Your task to perform on an android device: allow cookies in the chrome app Image 0: 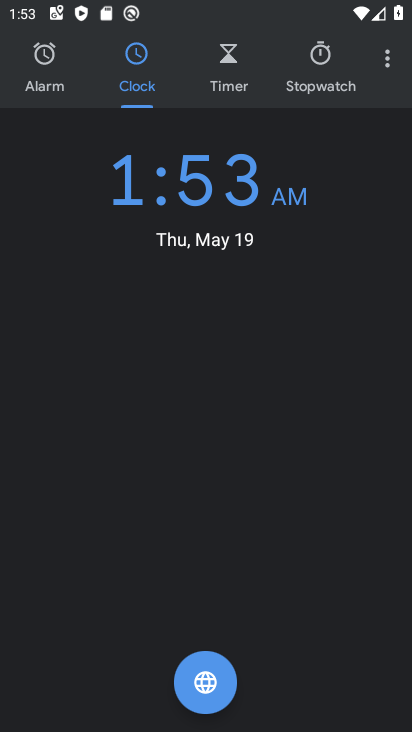
Step 0: press home button
Your task to perform on an android device: allow cookies in the chrome app Image 1: 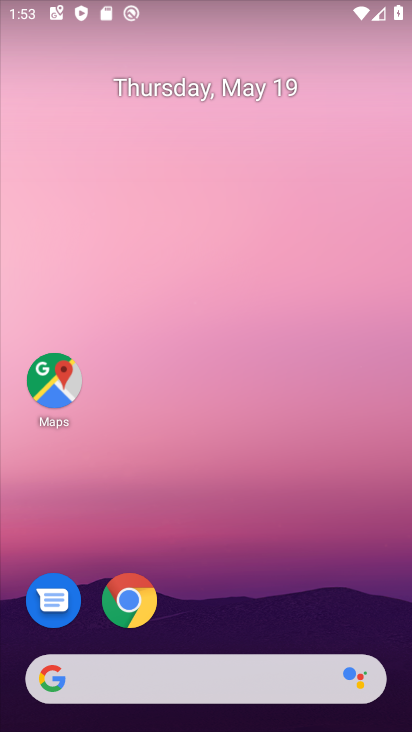
Step 1: click (126, 589)
Your task to perform on an android device: allow cookies in the chrome app Image 2: 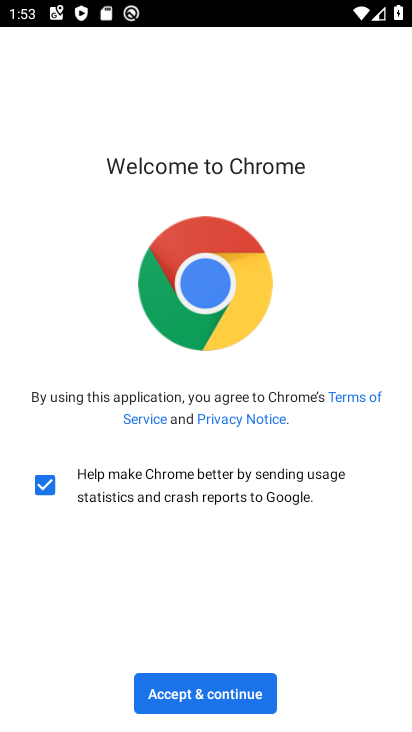
Step 2: click (218, 695)
Your task to perform on an android device: allow cookies in the chrome app Image 3: 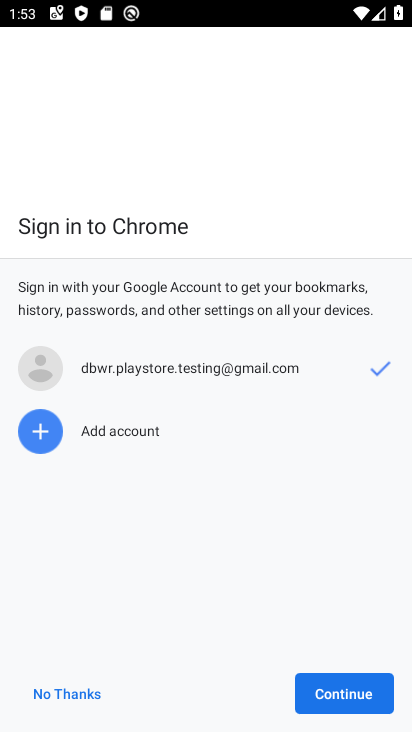
Step 3: click (56, 693)
Your task to perform on an android device: allow cookies in the chrome app Image 4: 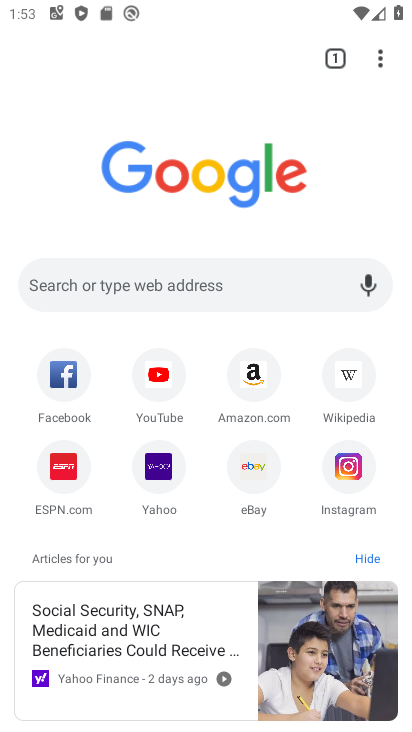
Step 4: click (383, 62)
Your task to perform on an android device: allow cookies in the chrome app Image 5: 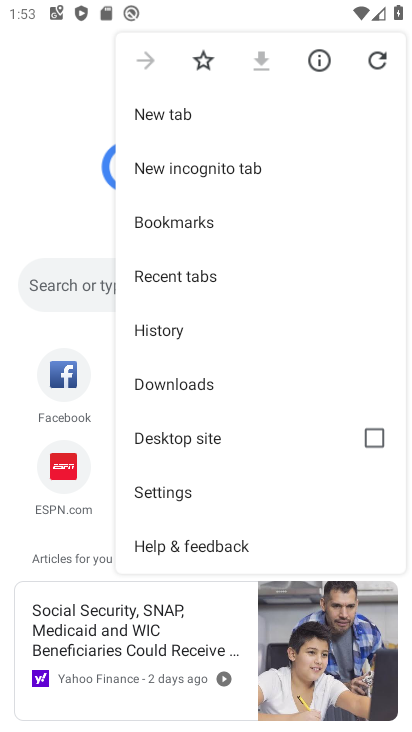
Step 5: click (163, 487)
Your task to perform on an android device: allow cookies in the chrome app Image 6: 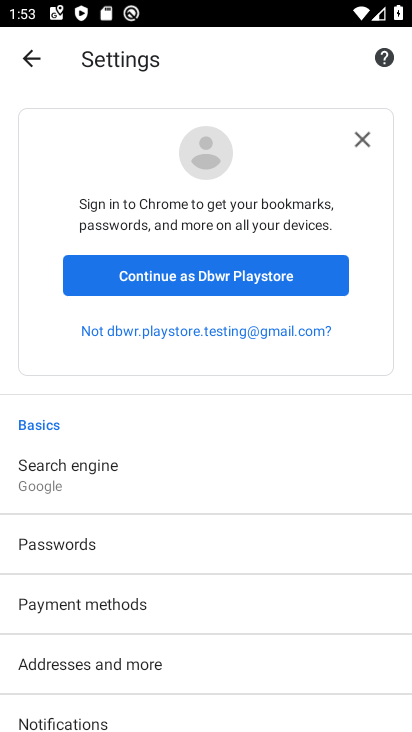
Step 6: drag from (7, 640) to (140, 148)
Your task to perform on an android device: allow cookies in the chrome app Image 7: 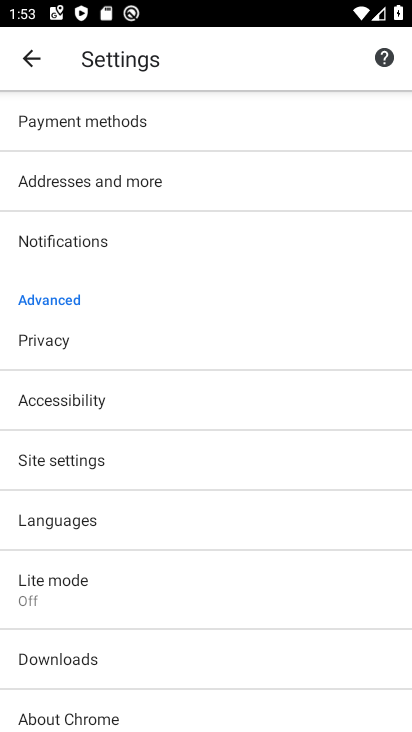
Step 7: click (118, 466)
Your task to perform on an android device: allow cookies in the chrome app Image 8: 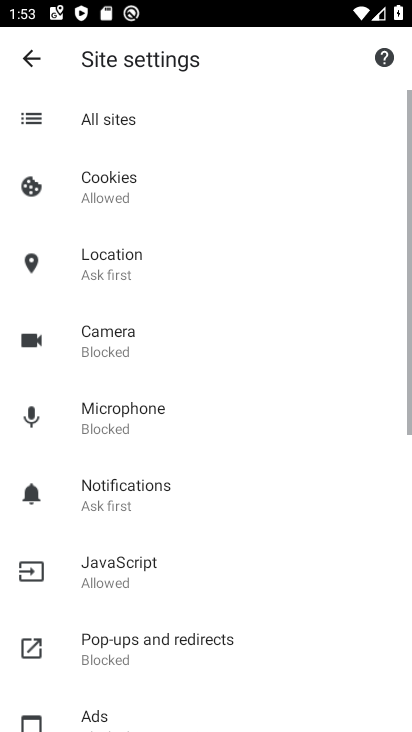
Step 8: click (126, 170)
Your task to perform on an android device: allow cookies in the chrome app Image 9: 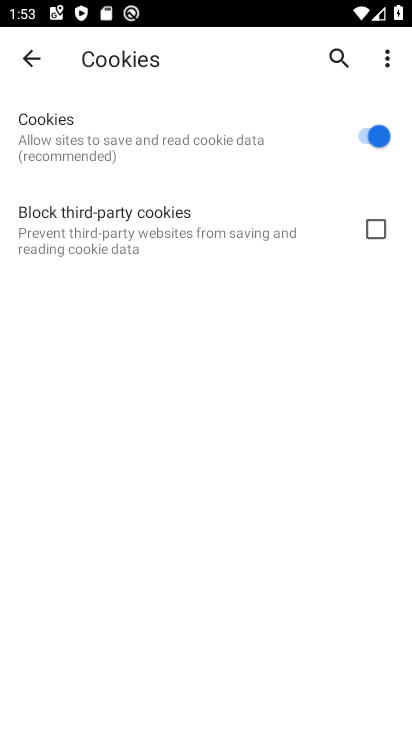
Step 9: task complete